Your task to perform on an android device: toggle improve location accuracy Image 0: 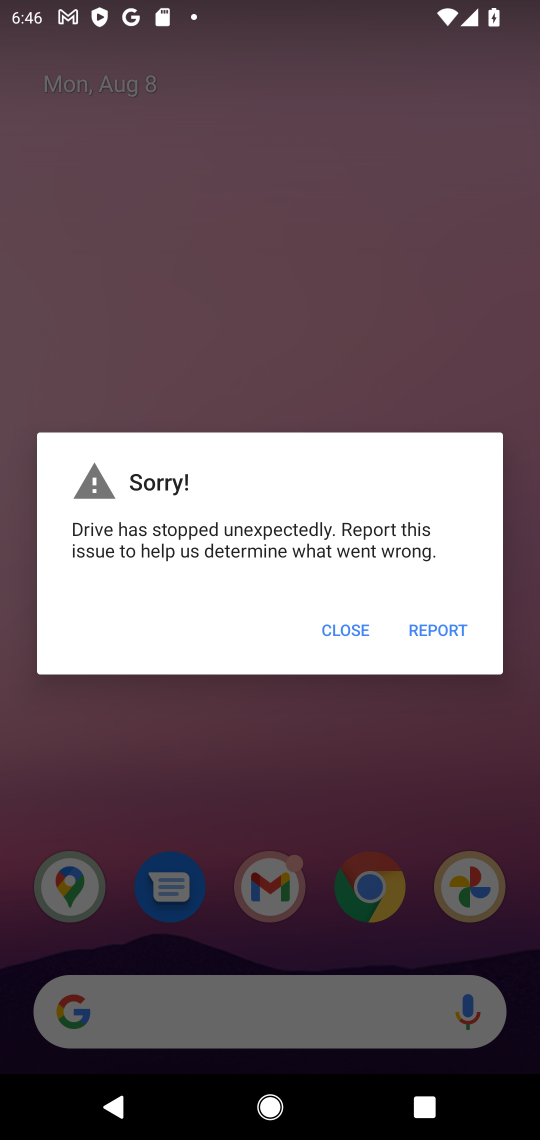
Step 0: click (339, 652)
Your task to perform on an android device: toggle improve location accuracy Image 1: 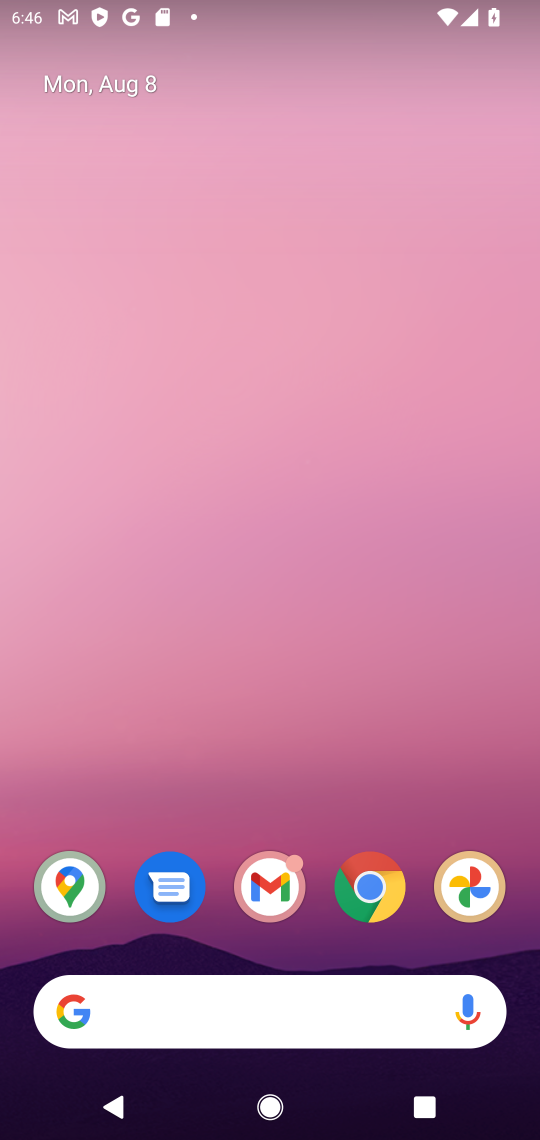
Step 1: drag from (317, 815) to (268, 186)
Your task to perform on an android device: toggle improve location accuracy Image 2: 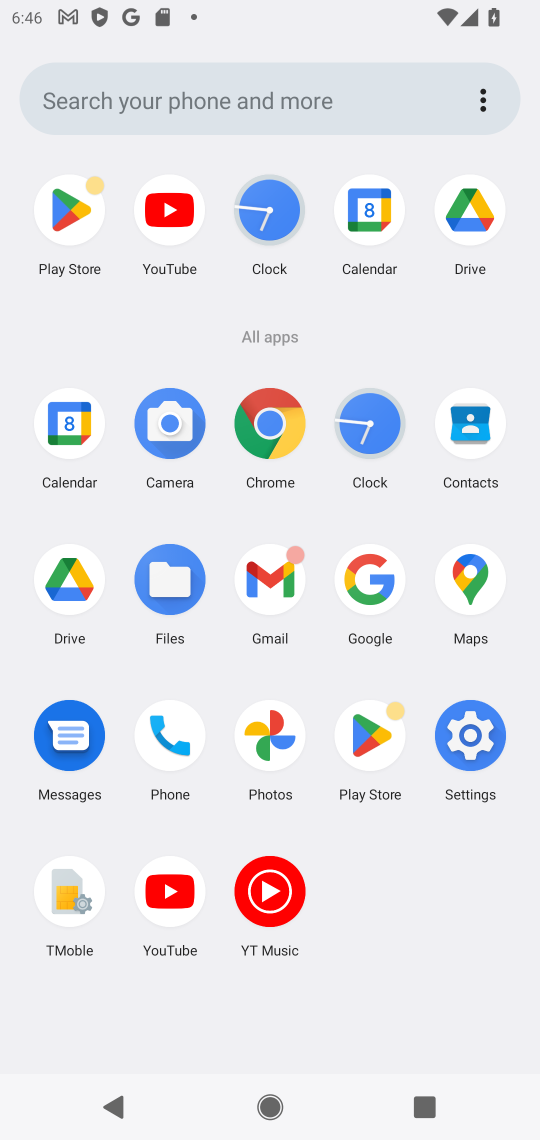
Step 2: click (484, 741)
Your task to perform on an android device: toggle improve location accuracy Image 3: 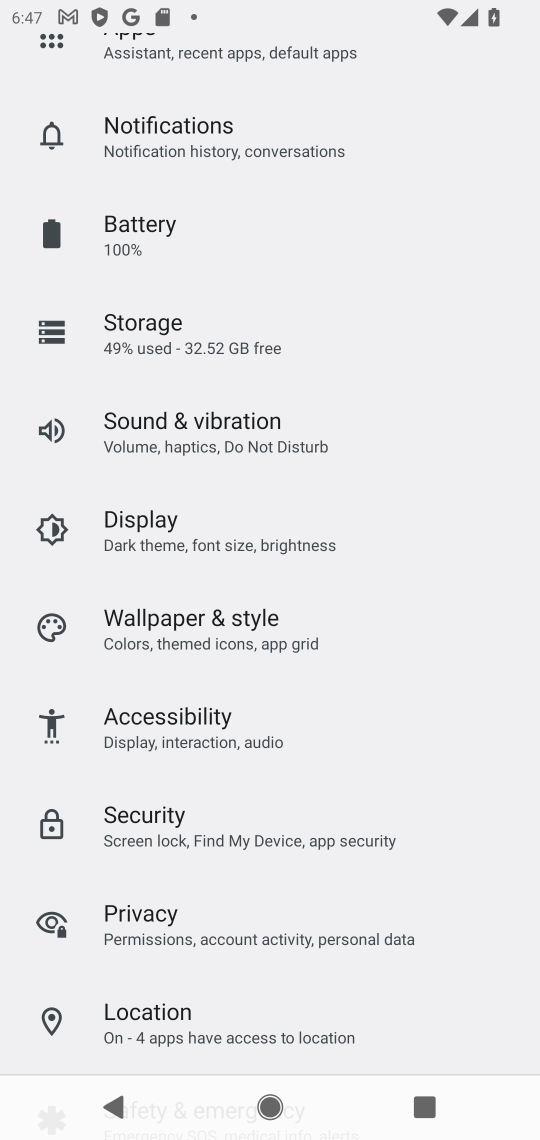
Step 3: click (332, 1042)
Your task to perform on an android device: toggle improve location accuracy Image 4: 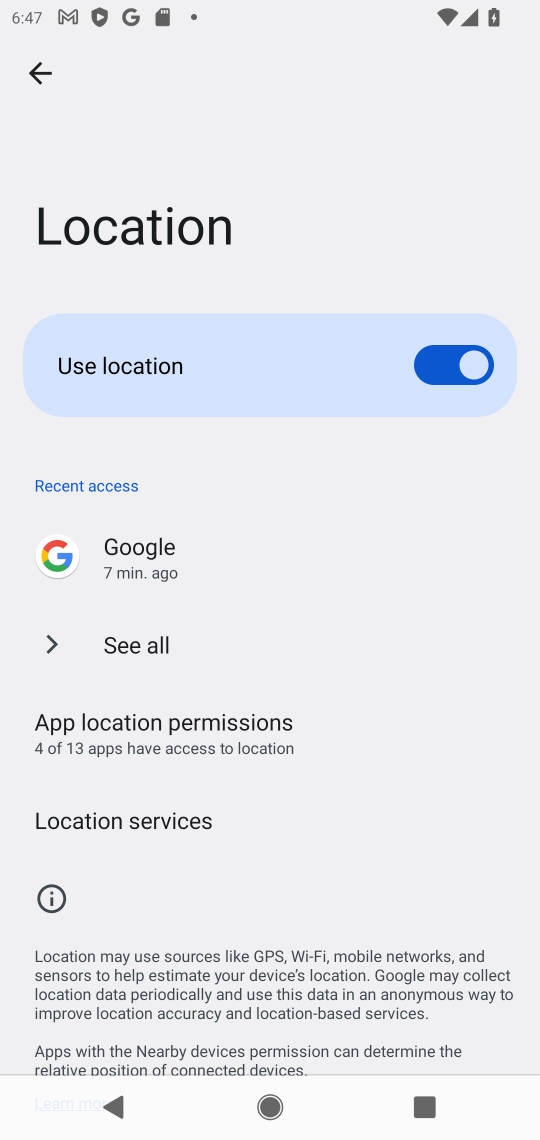
Step 4: click (257, 828)
Your task to perform on an android device: toggle improve location accuracy Image 5: 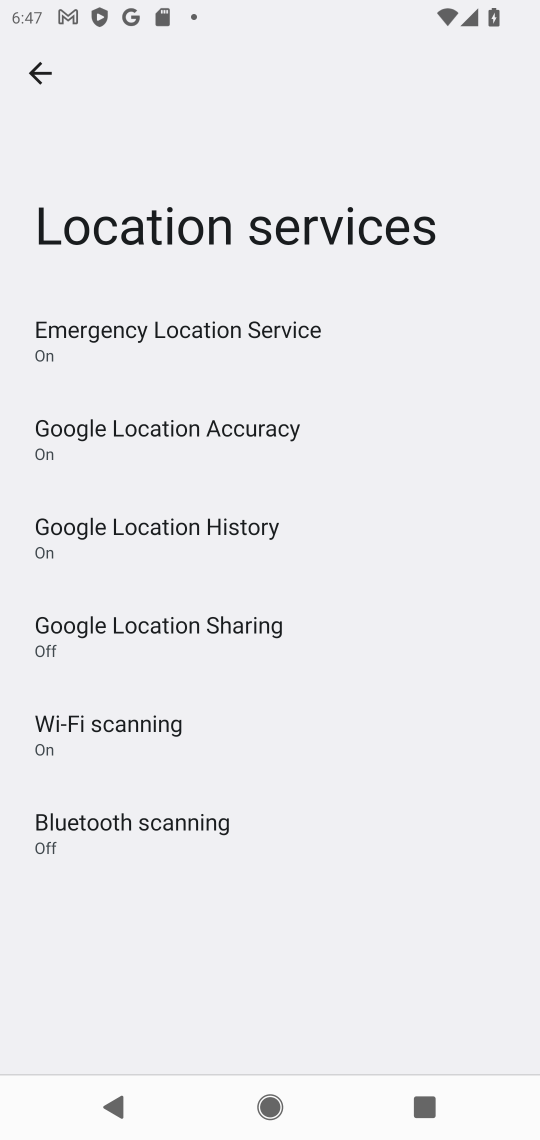
Step 5: click (214, 434)
Your task to perform on an android device: toggle improve location accuracy Image 6: 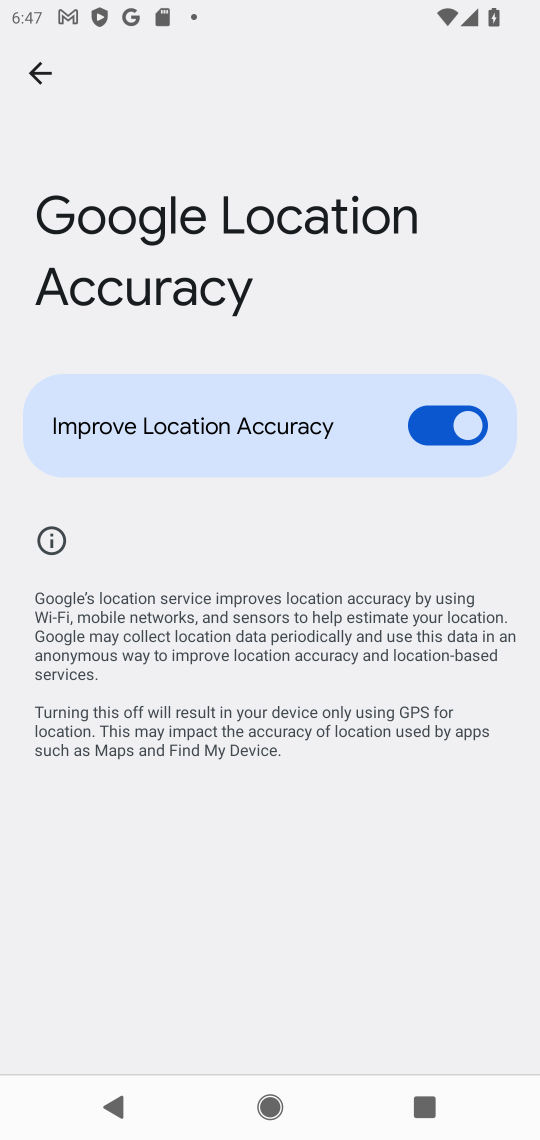
Step 6: click (445, 437)
Your task to perform on an android device: toggle improve location accuracy Image 7: 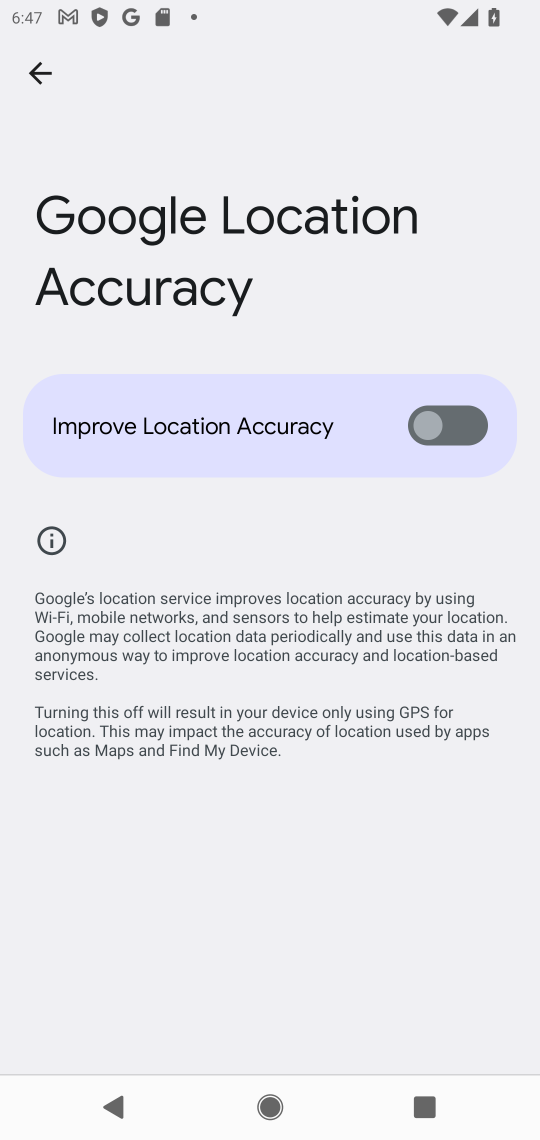
Step 7: task complete